Your task to perform on an android device: turn off picture-in-picture Image 0: 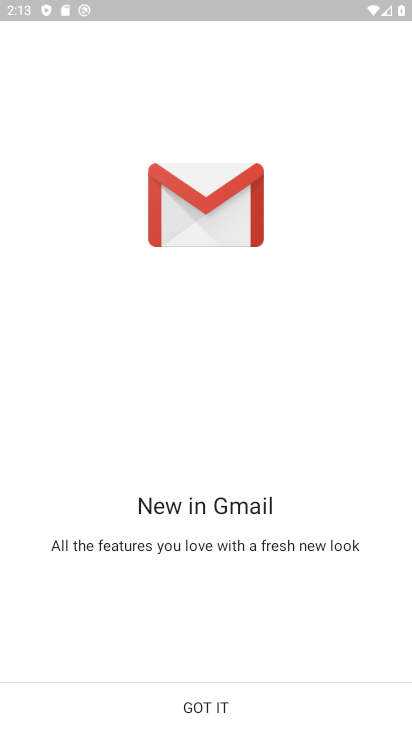
Step 0: click (176, 704)
Your task to perform on an android device: turn off picture-in-picture Image 1: 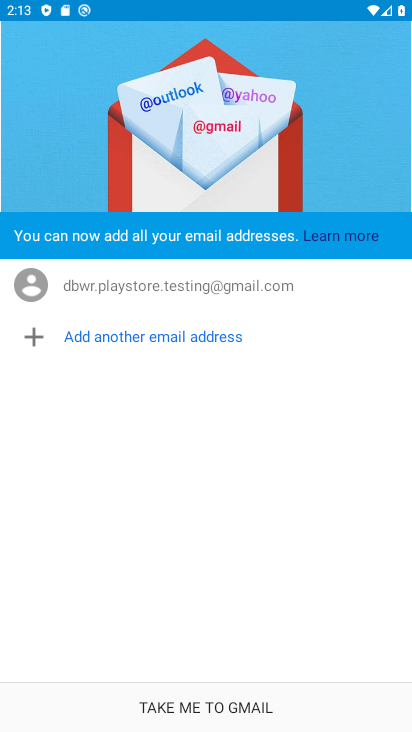
Step 1: press home button
Your task to perform on an android device: turn off picture-in-picture Image 2: 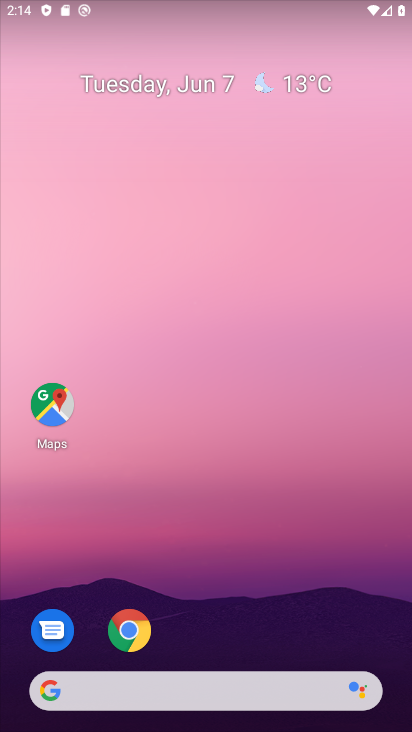
Step 2: drag from (312, 602) to (316, 6)
Your task to perform on an android device: turn off picture-in-picture Image 3: 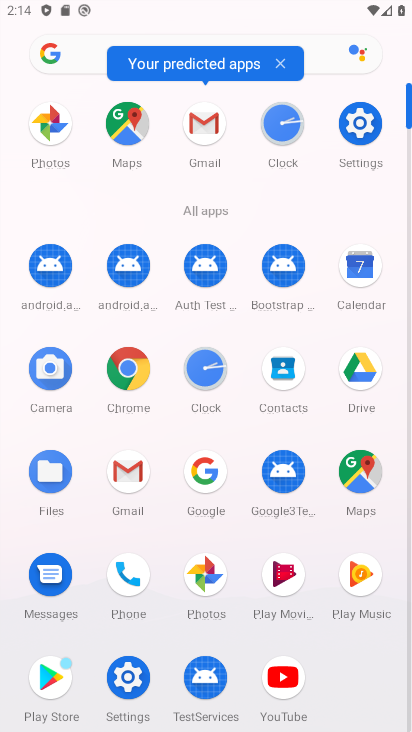
Step 3: click (358, 124)
Your task to perform on an android device: turn off picture-in-picture Image 4: 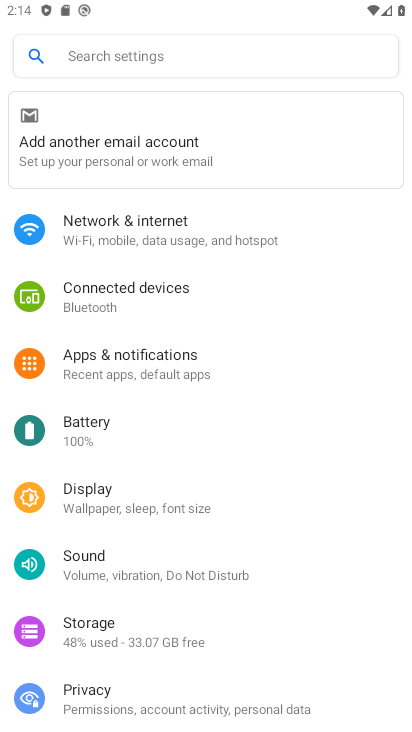
Step 4: drag from (361, 693) to (390, 219)
Your task to perform on an android device: turn off picture-in-picture Image 5: 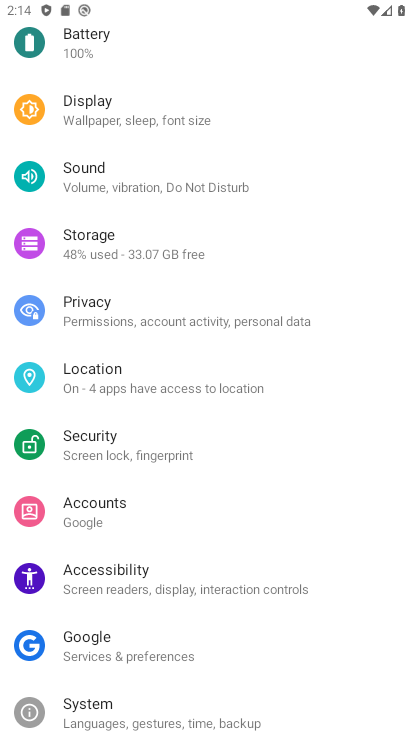
Step 5: drag from (331, 692) to (350, 352)
Your task to perform on an android device: turn off picture-in-picture Image 6: 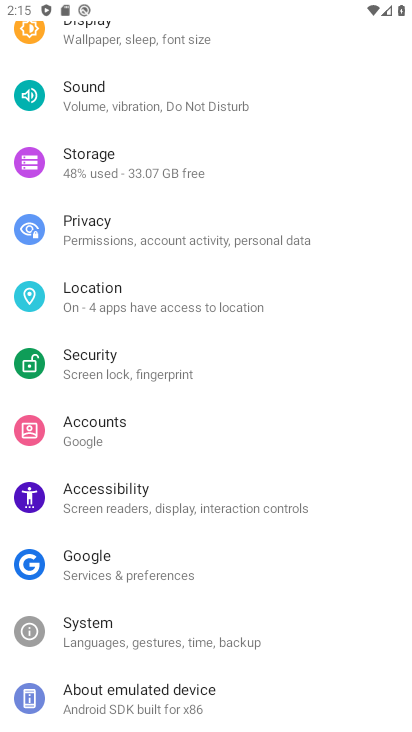
Step 6: drag from (364, 85) to (367, 365)
Your task to perform on an android device: turn off picture-in-picture Image 7: 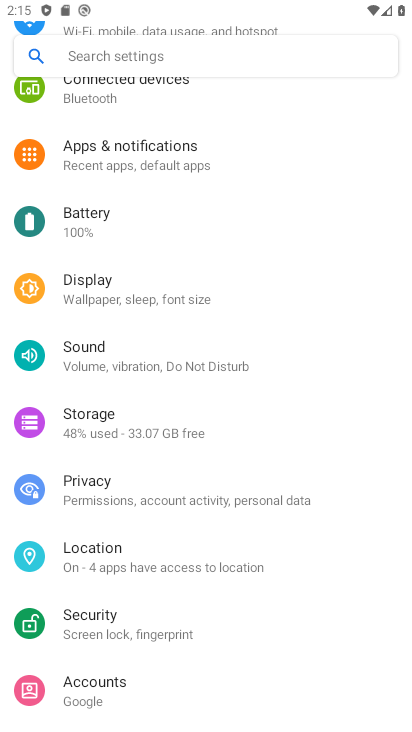
Step 7: click (207, 52)
Your task to perform on an android device: turn off picture-in-picture Image 8: 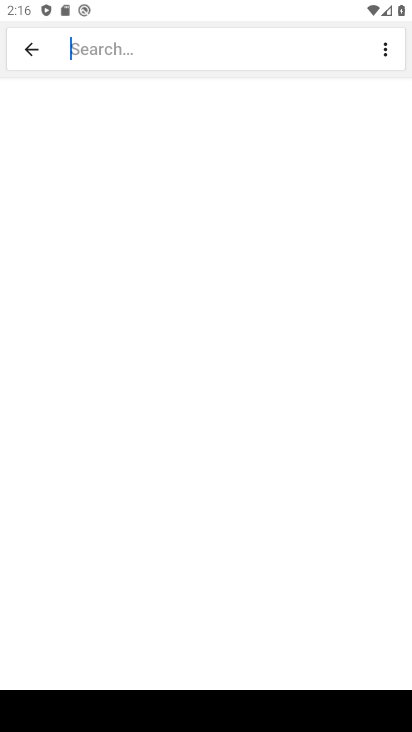
Step 8: type "Picture in picture"
Your task to perform on an android device: turn off picture-in-picture Image 9: 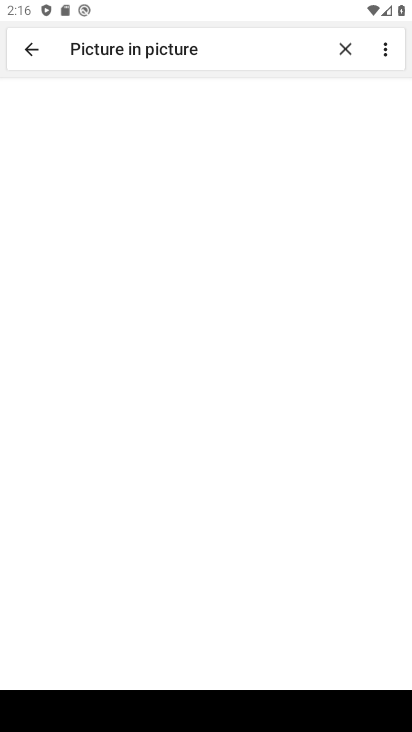
Step 9: click (384, 41)
Your task to perform on an android device: turn off picture-in-picture Image 10: 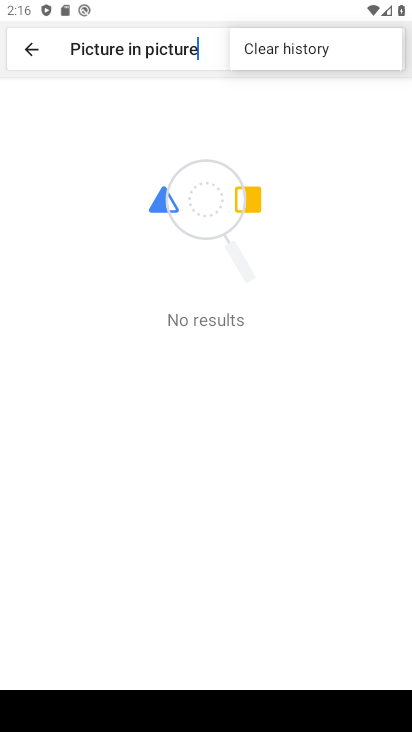
Step 10: click (25, 47)
Your task to perform on an android device: turn off picture-in-picture Image 11: 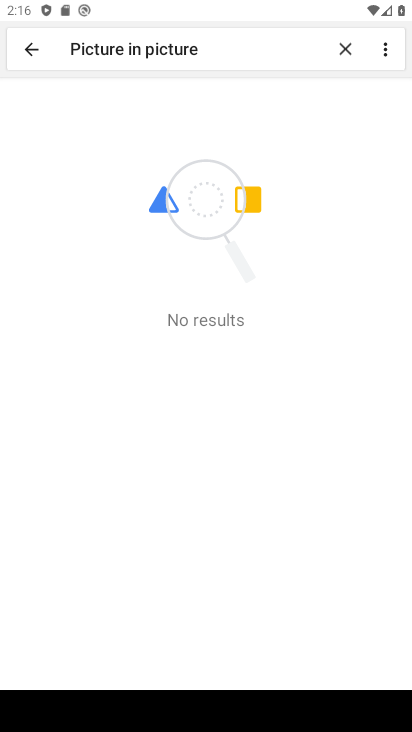
Step 11: task complete